Your task to perform on an android device: open the mobile data screen to see how much data has been used Image 0: 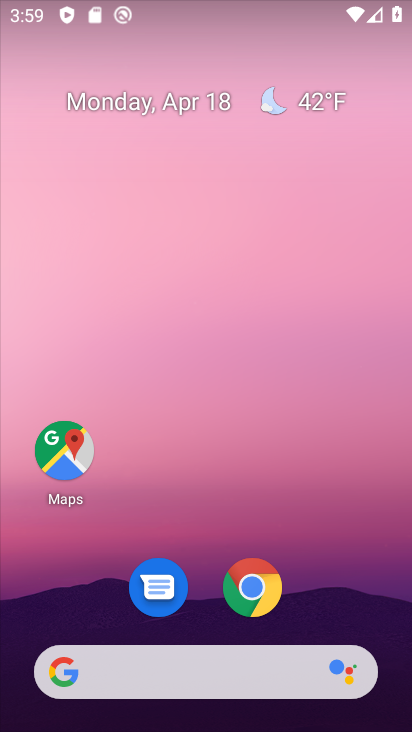
Step 0: click (193, 45)
Your task to perform on an android device: open the mobile data screen to see how much data has been used Image 1: 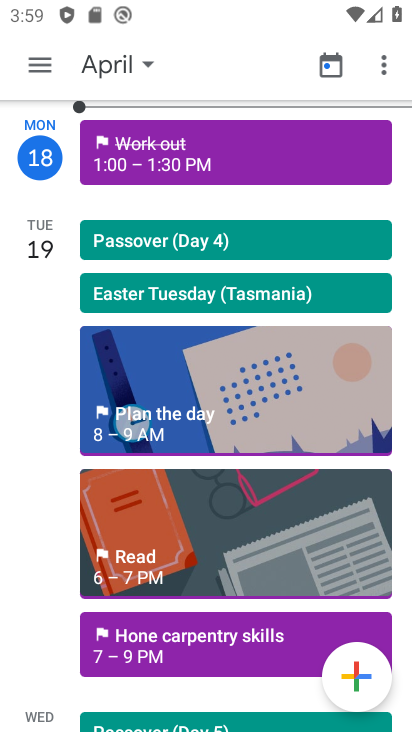
Step 1: press home button
Your task to perform on an android device: open the mobile data screen to see how much data has been used Image 2: 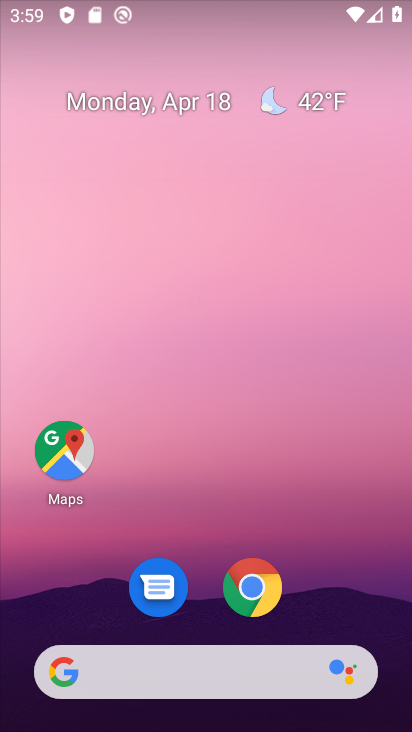
Step 2: drag from (198, 617) to (218, 90)
Your task to perform on an android device: open the mobile data screen to see how much data has been used Image 3: 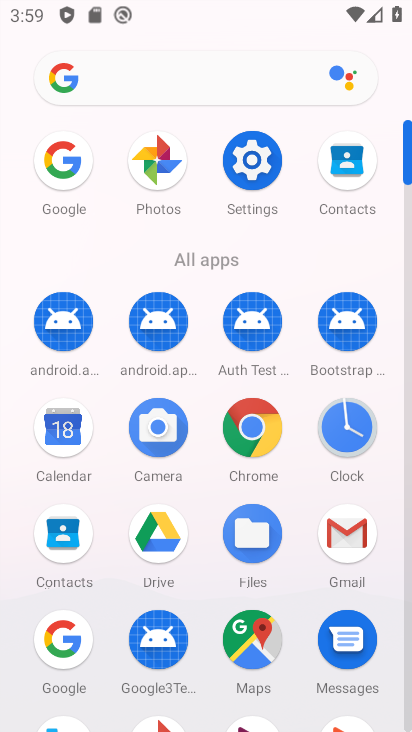
Step 3: click (260, 161)
Your task to perform on an android device: open the mobile data screen to see how much data has been used Image 4: 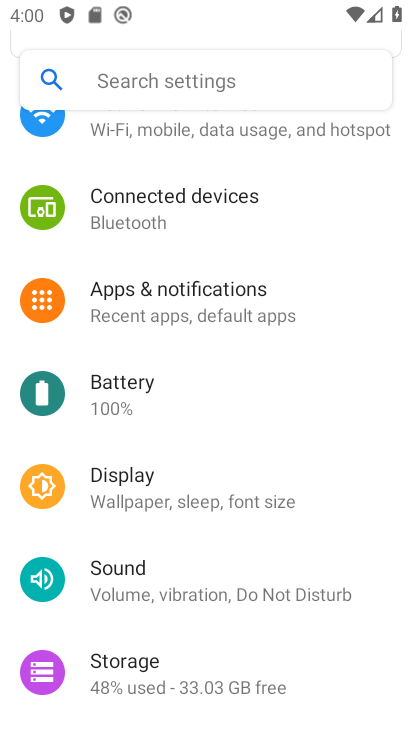
Step 4: click (184, 132)
Your task to perform on an android device: open the mobile data screen to see how much data has been used Image 5: 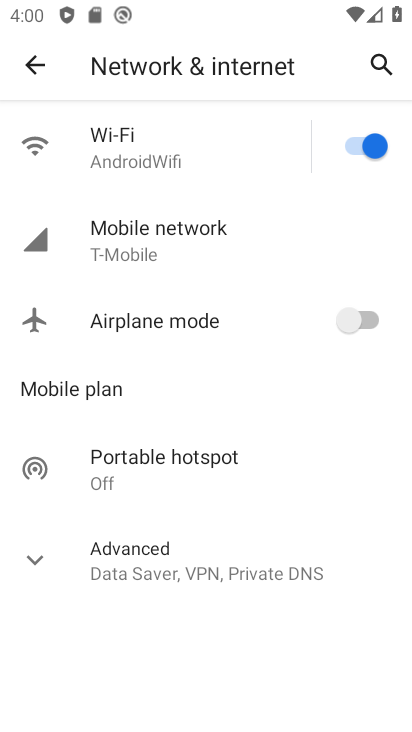
Step 5: click (198, 239)
Your task to perform on an android device: open the mobile data screen to see how much data has been used Image 6: 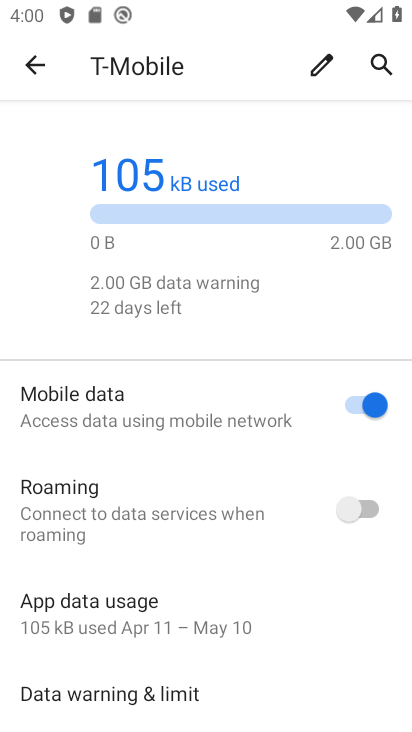
Step 6: task complete